Your task to perform on an android device: show emergency info Image 0: 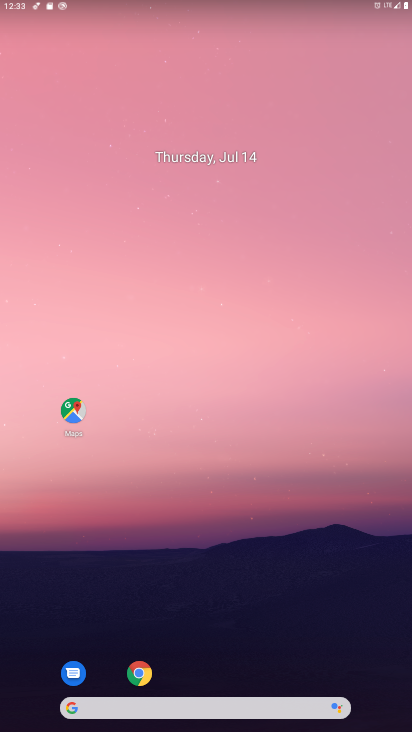
Step 0: click (291, 522)
Your task to perform on an android device: show emergency info Image 1: 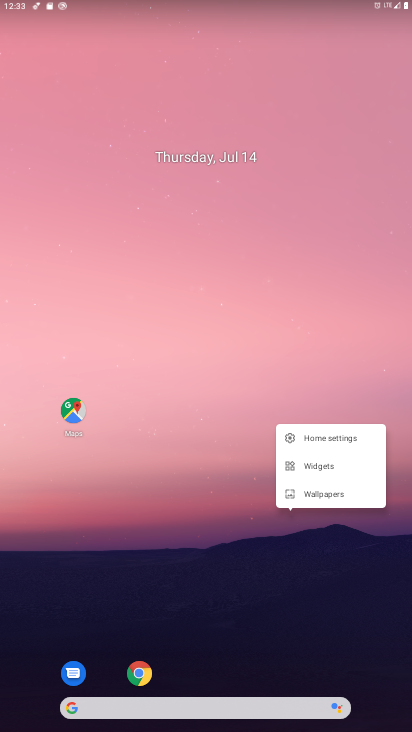
Step 1: click (135, 671)
Your task to perform on an android device: show emergency info Image 2: 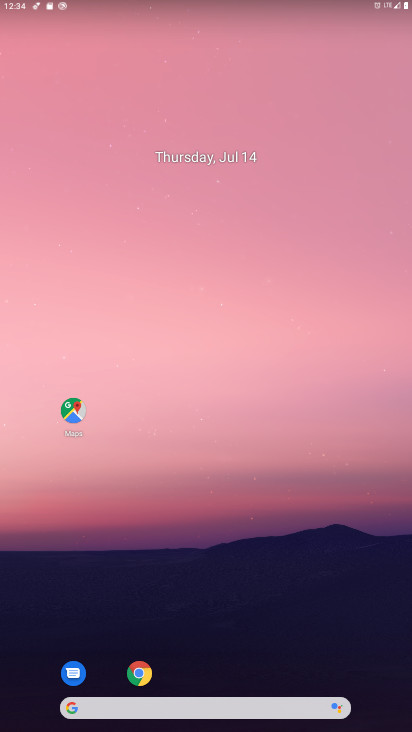
Step 2: drag from (172, 624) to (208, 482)
Your task to perform on an android device: show emergency info Image 3: 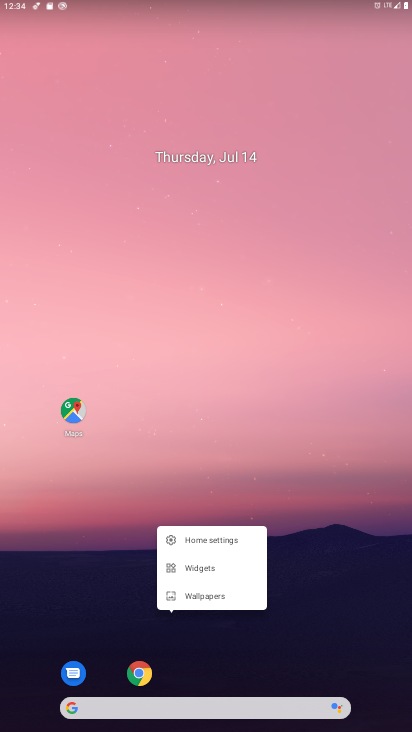
Step 3: click (322, 641)
Your task to perform on an android device: show emergency info Image 4: 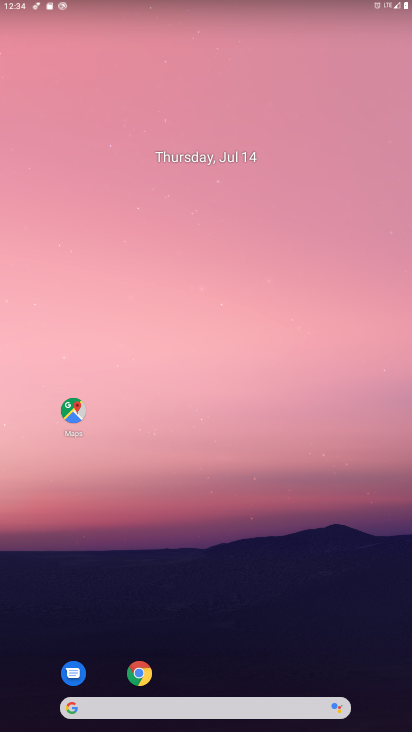
Step 4: drag from (334, 680) to (329, 1)
Your task to perform on an android device: show emergency info Image 5: 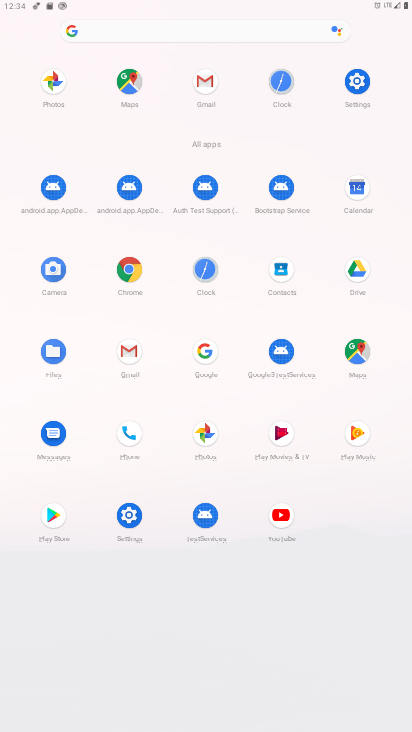
Step 5: click (378, 72)
Your task to perform on an android device: show emergency info Image 6: 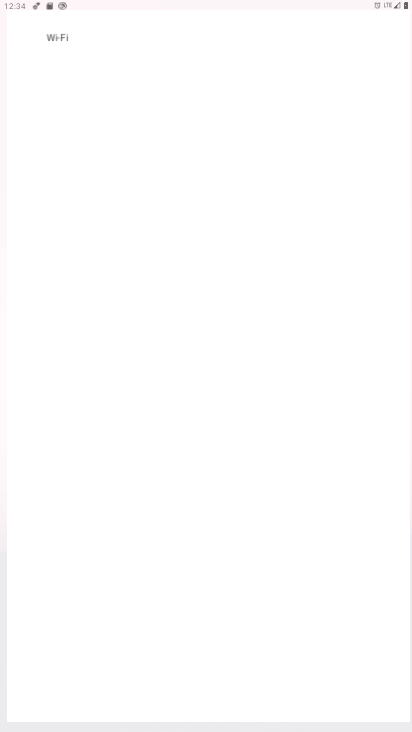
Step 6: click (379, 72)
Your task to perform on an android device: show emergency info Image 7: 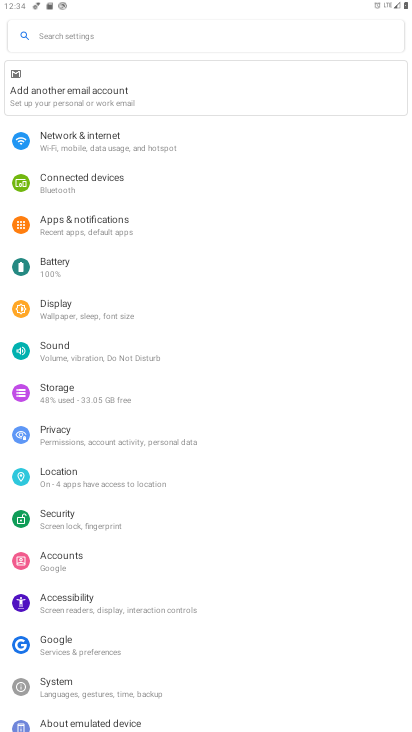
Step 7: drag from (379, 72) to (394, 12)
Your task to perform on an android device: show emergency info Image 8: 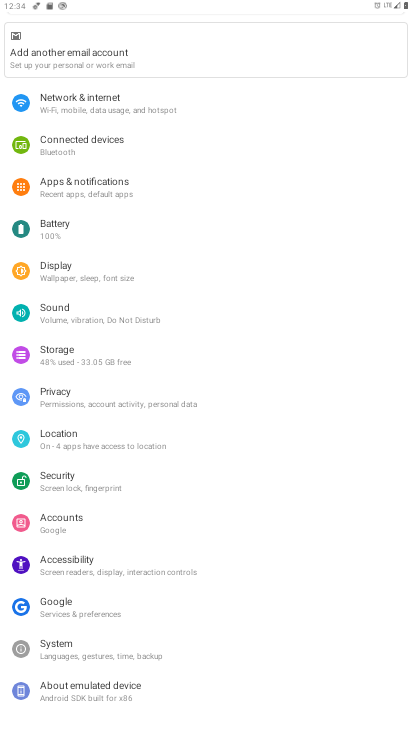
Step 8: click (100, 692)
Your task to perform on an android device: show emergency info Image 9: 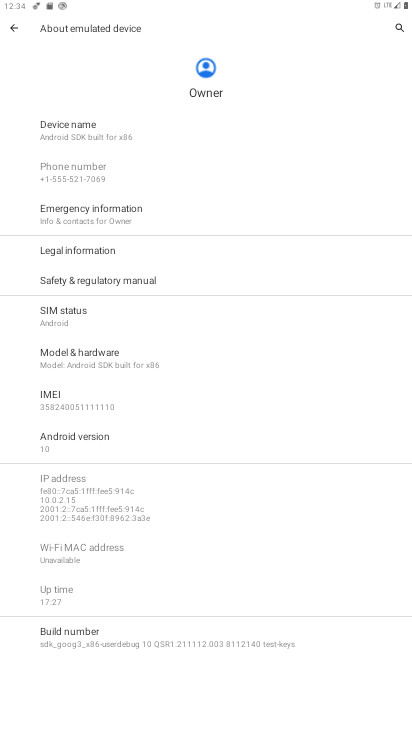
Step 9: click (182, 221)
Your task to perform on an android device: show emergency info Image 10: 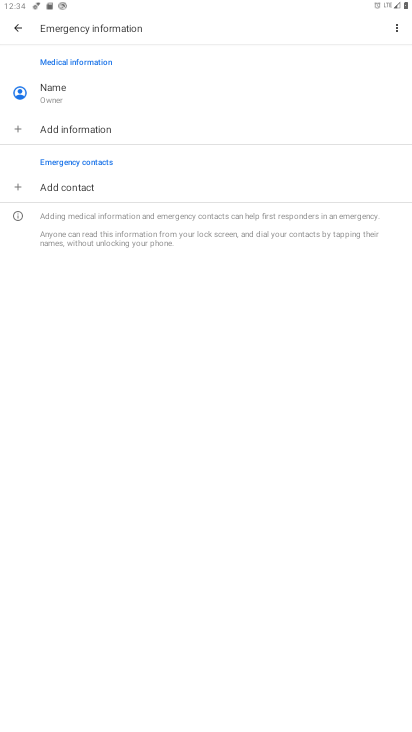
Step 10: click (183, 220)
Your task to perform on an android device: show emergency info Image 11: 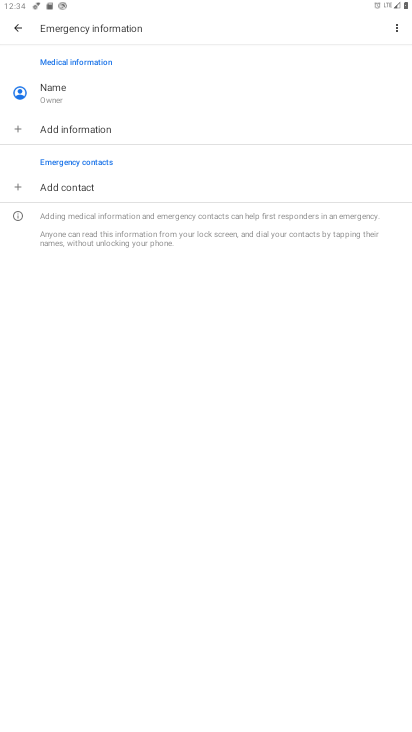
Step 11: task complete